Your task to perform on an android device: install app "Gmail" Image 0: 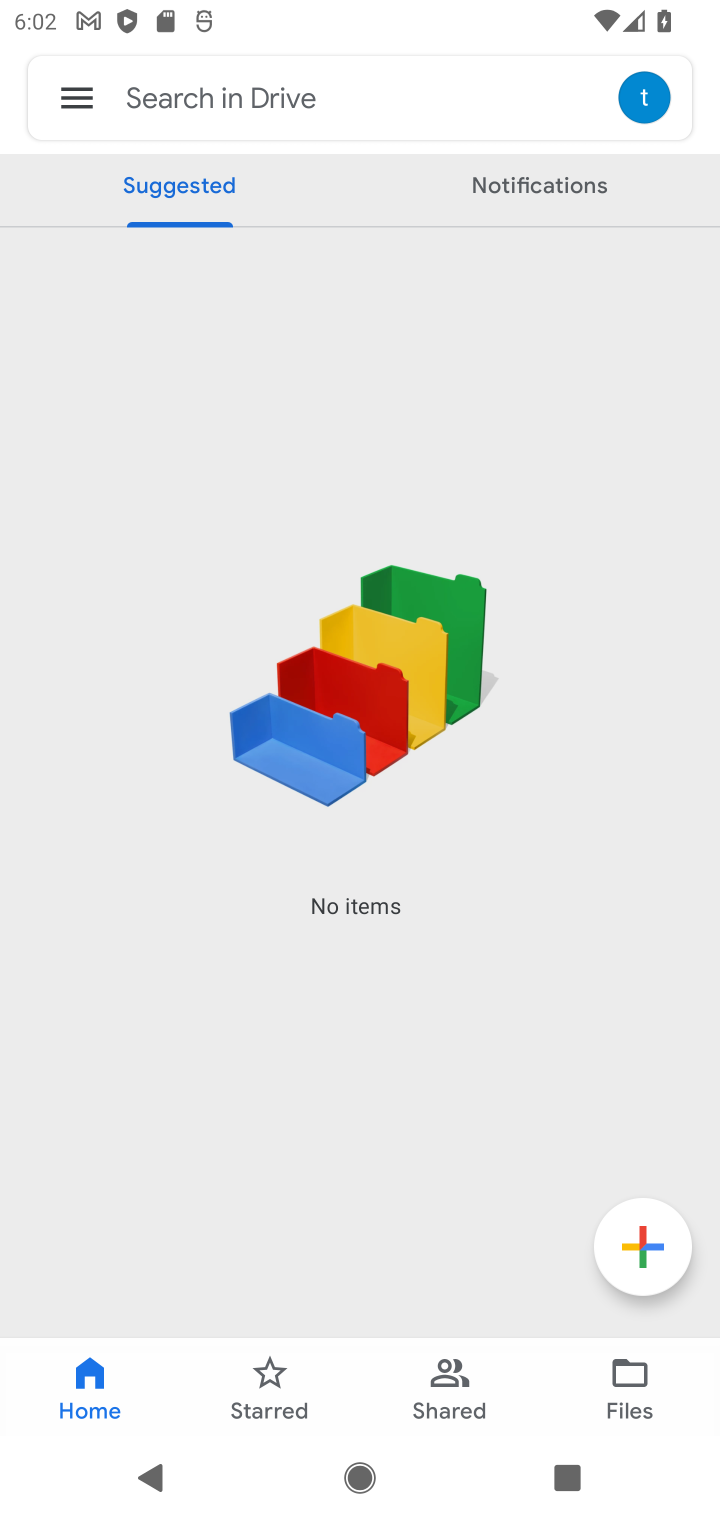
Step 0: click (343, 97)
Your task to perform on an android device: install app "Gmail" Image 1: 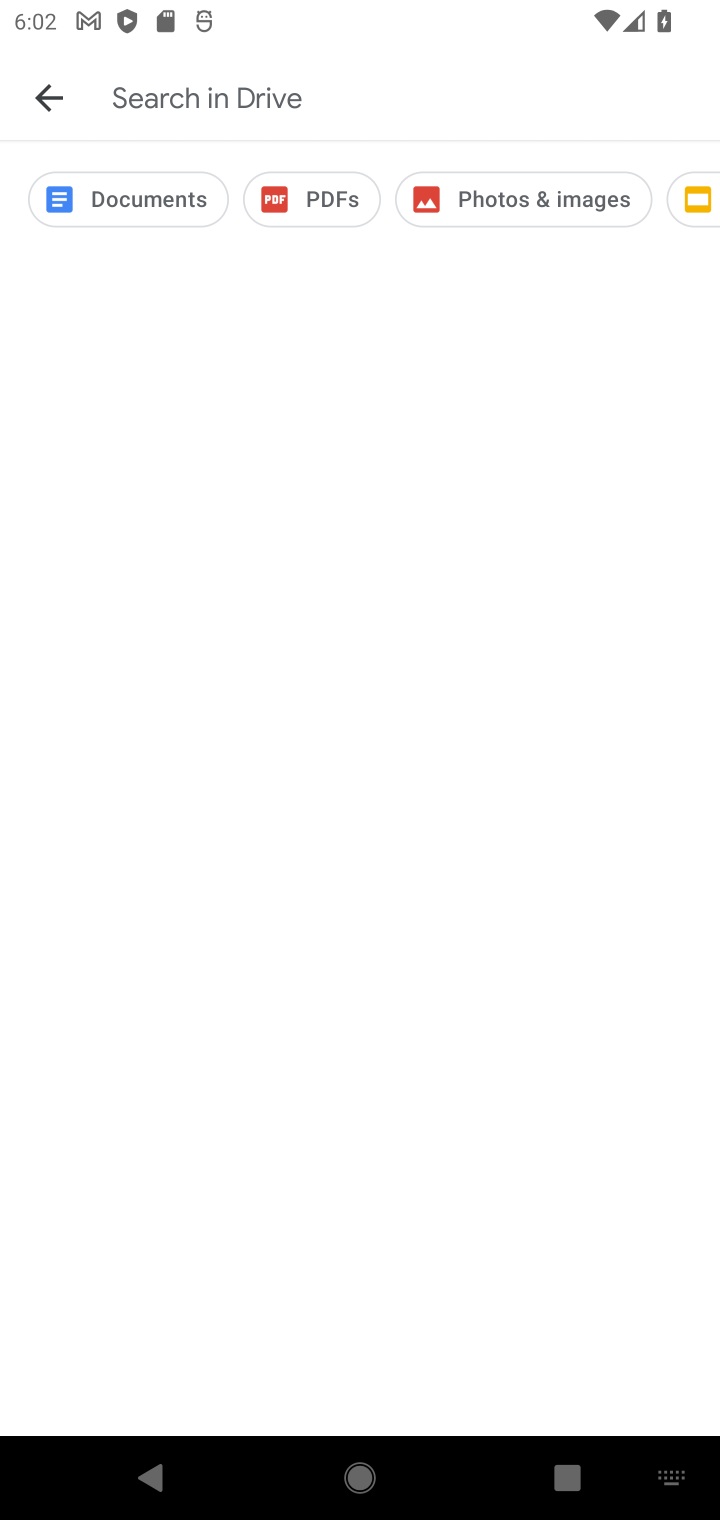
Step 1: press home button
Your task to perform on an android device: install app "Gmail" Image 2: 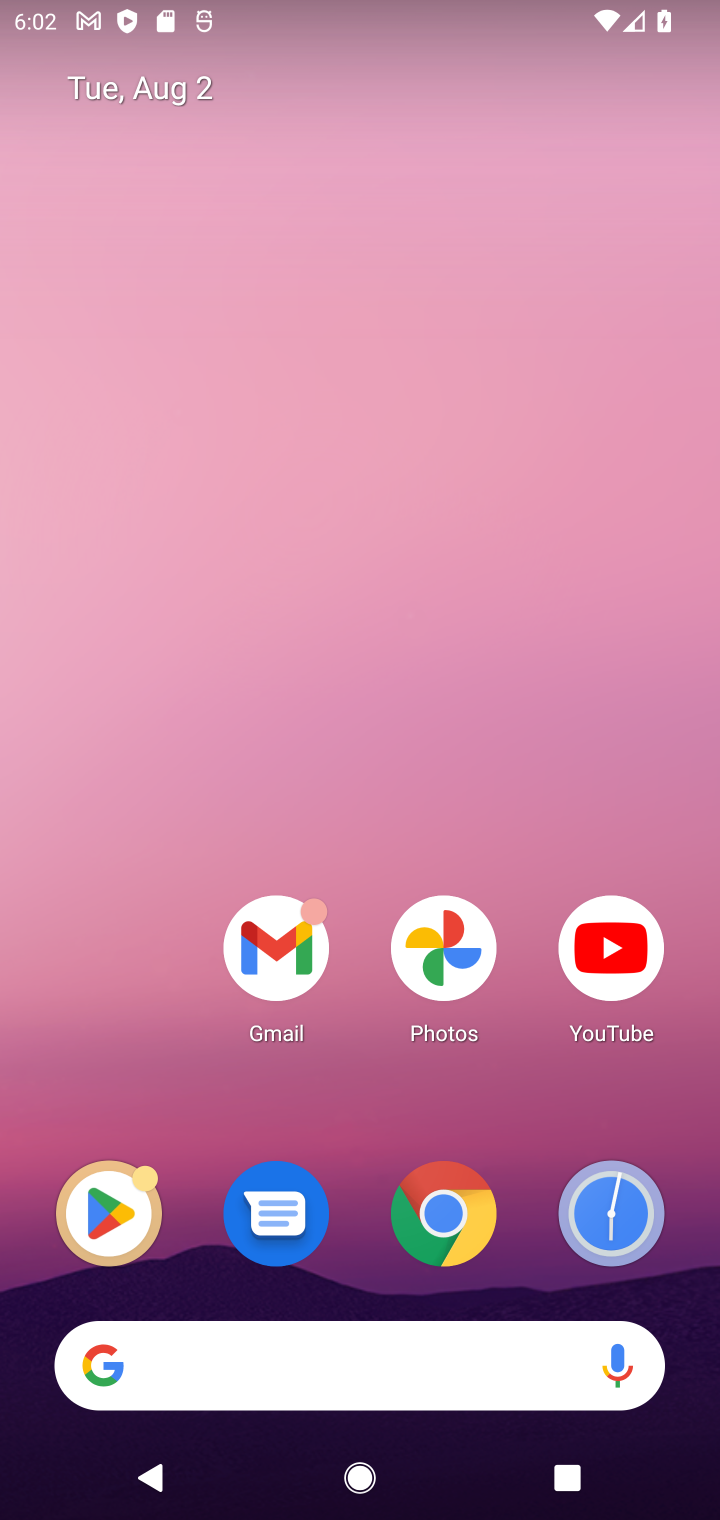
Step 2: click (115, 1211)
Your task to perform on an android device: install app "Gmail" Image 3: 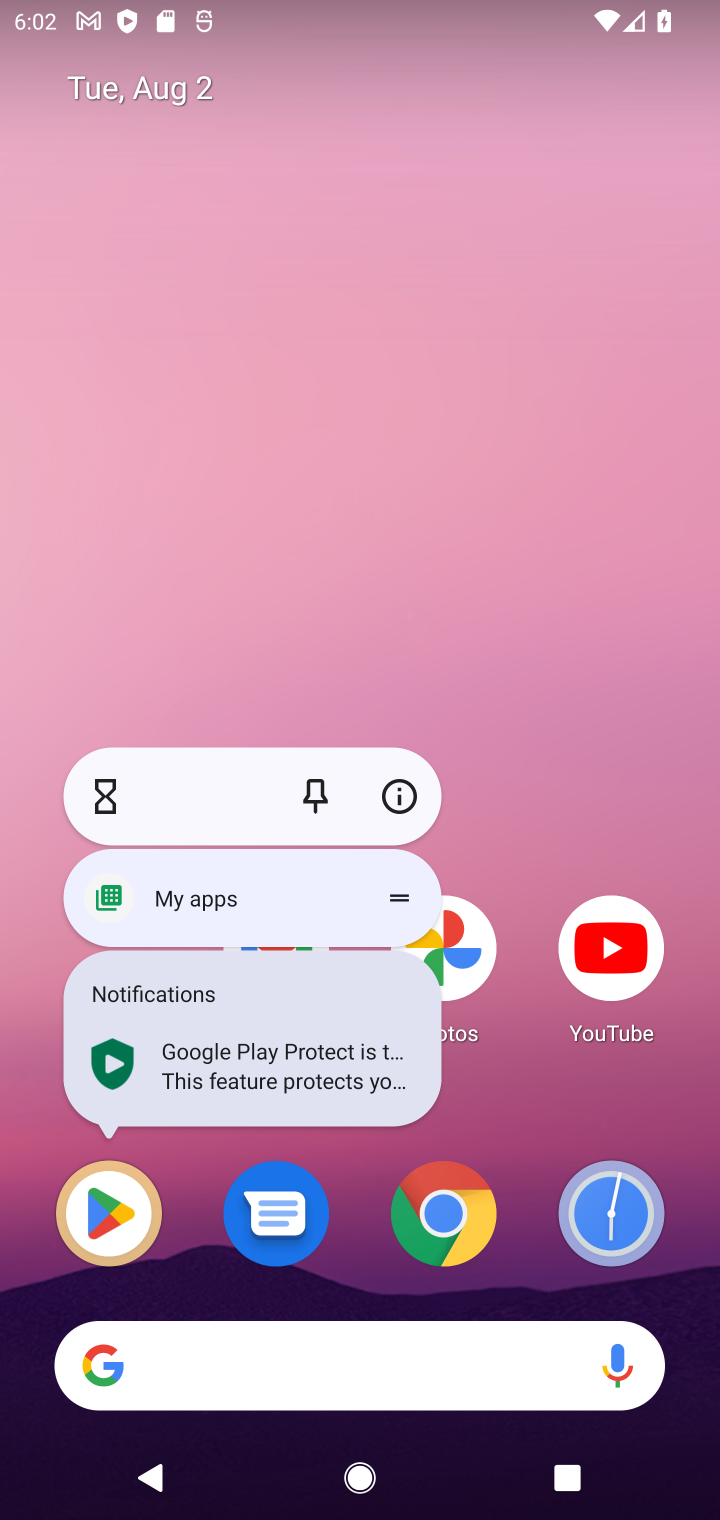
Step 3: click (115, 1211)
Your task to perform on an android device: install app "Gmail" Image 4: 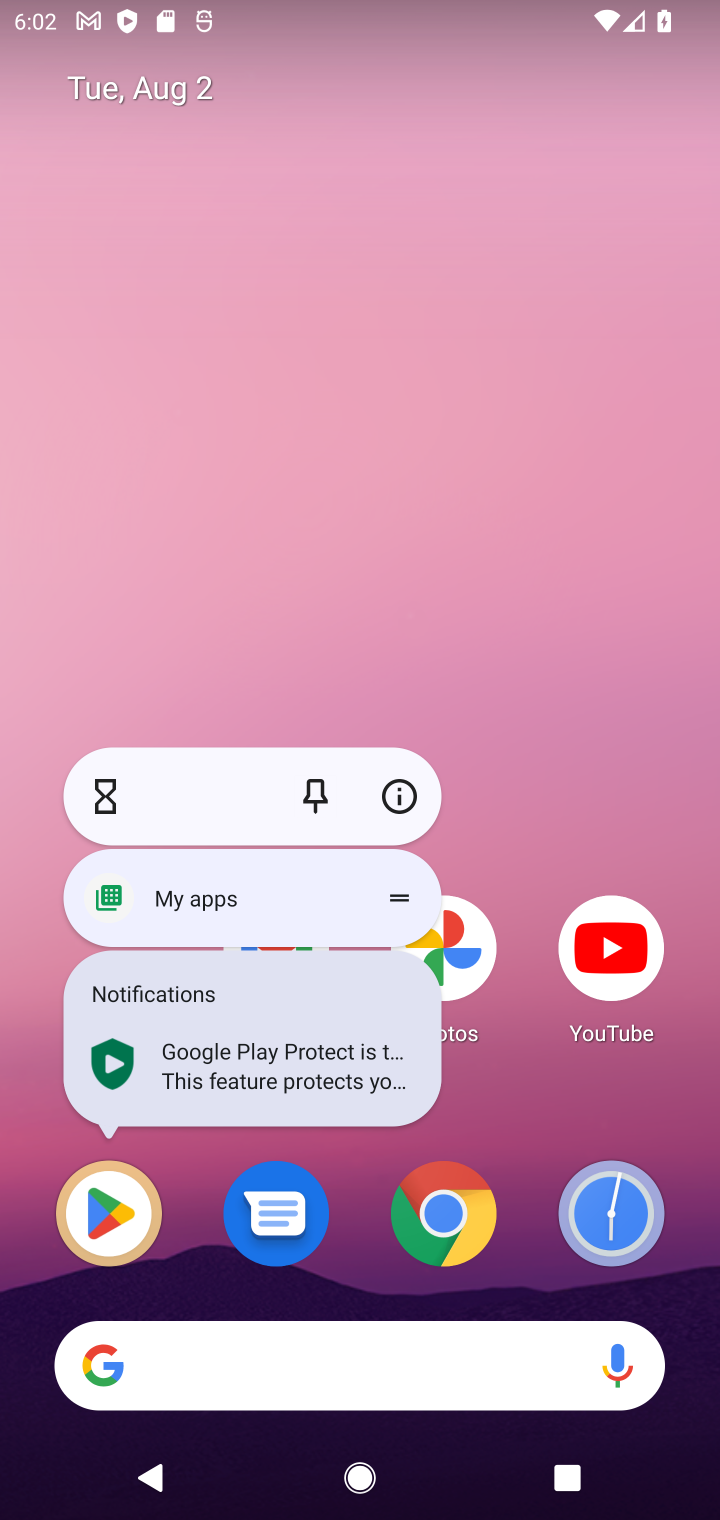
Step 4: click (85, 1189)
Your task to perform on an android device: install app "Gmail" Image 5: 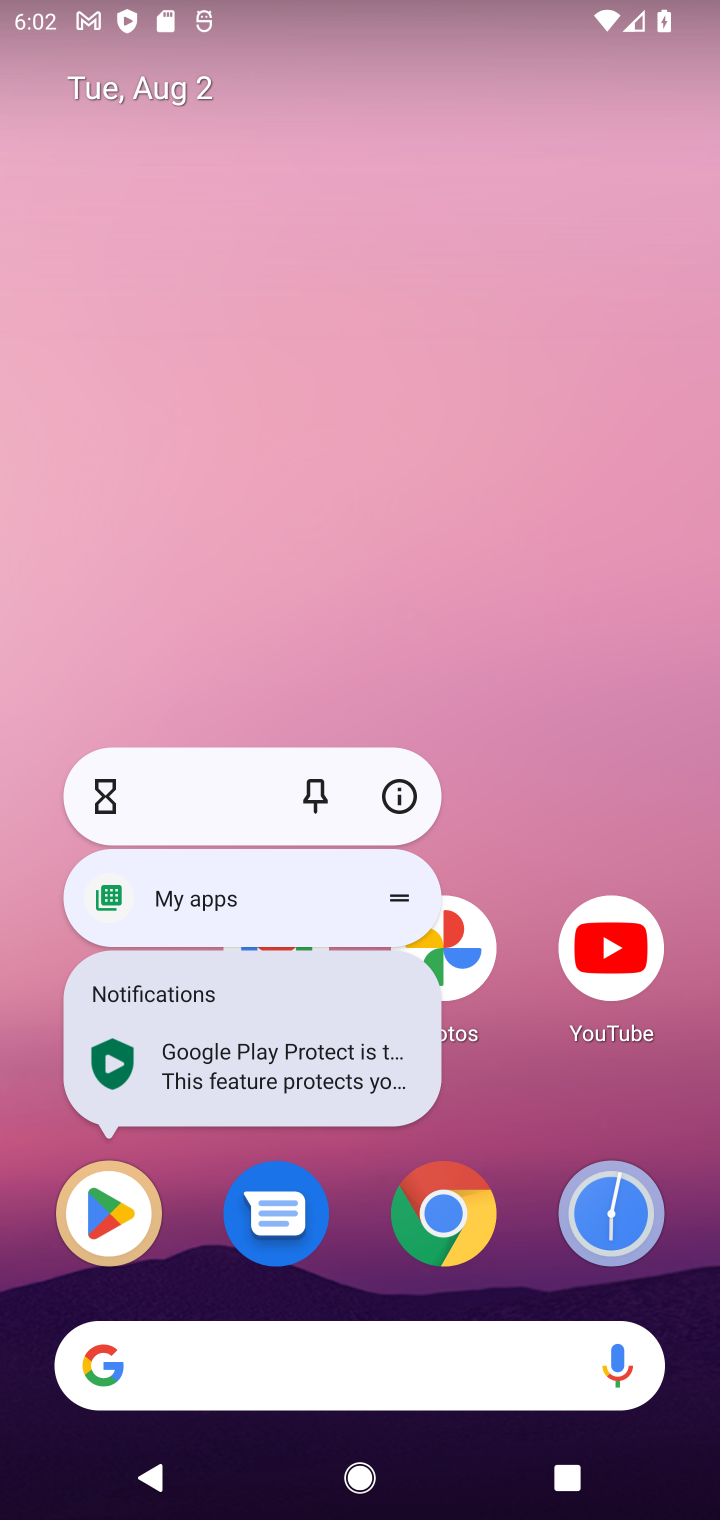
Step 5: drag from (63, 1195) to (97, 1262)
Your task to perform on an android device: install app "Gmail" Image 6: 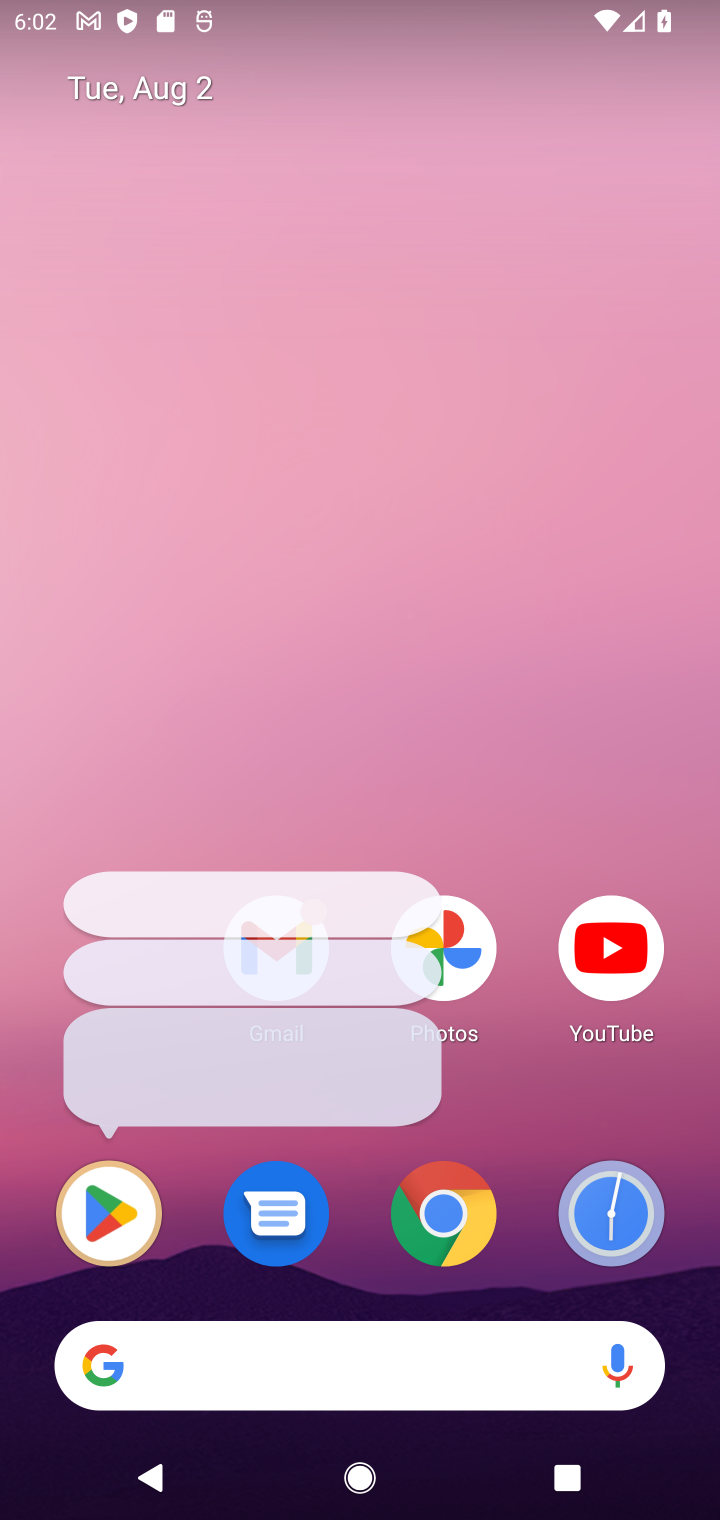
Step 6: click (140, 1190)
Your task to perform on an android device: install app "Gmail" Image 7: 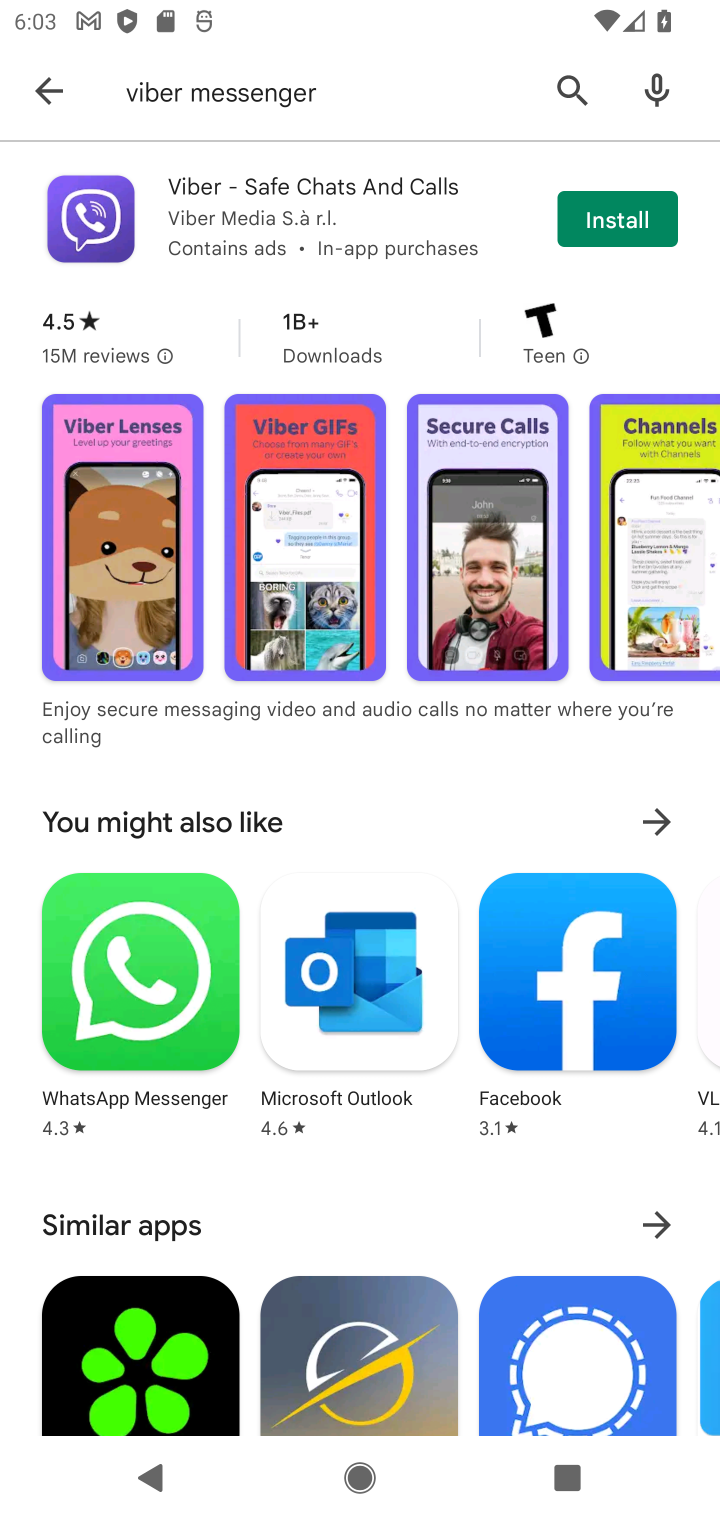
Step 7: click (587, 99)
Your task to perform on an android device: install app "Gmail" Image 8: 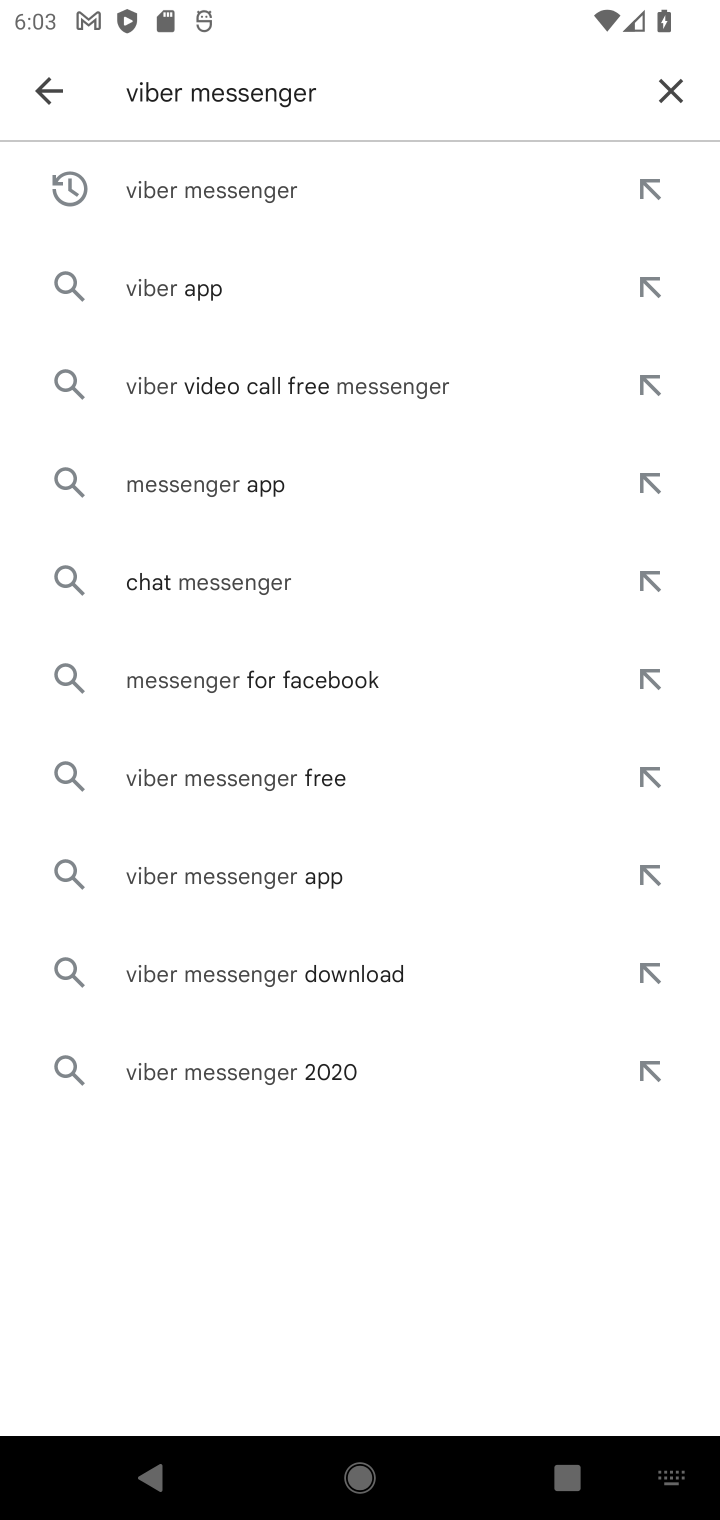
Step 8: click (678, 88)
Your task to perform on an android device: install app "Gmail" Image 9: 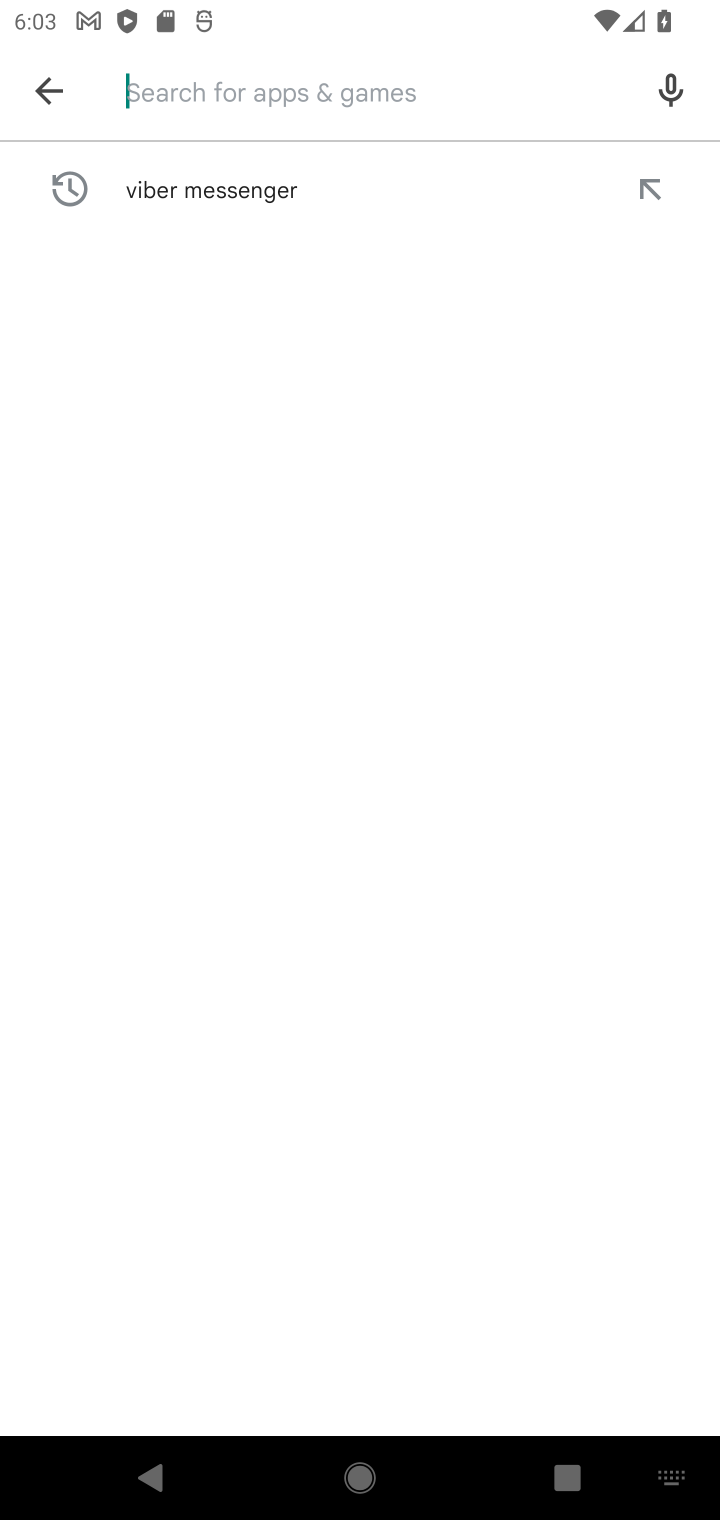
Step 9: type "gmail"
Your task to perform on an android device: install app "Gmail" Image 10: 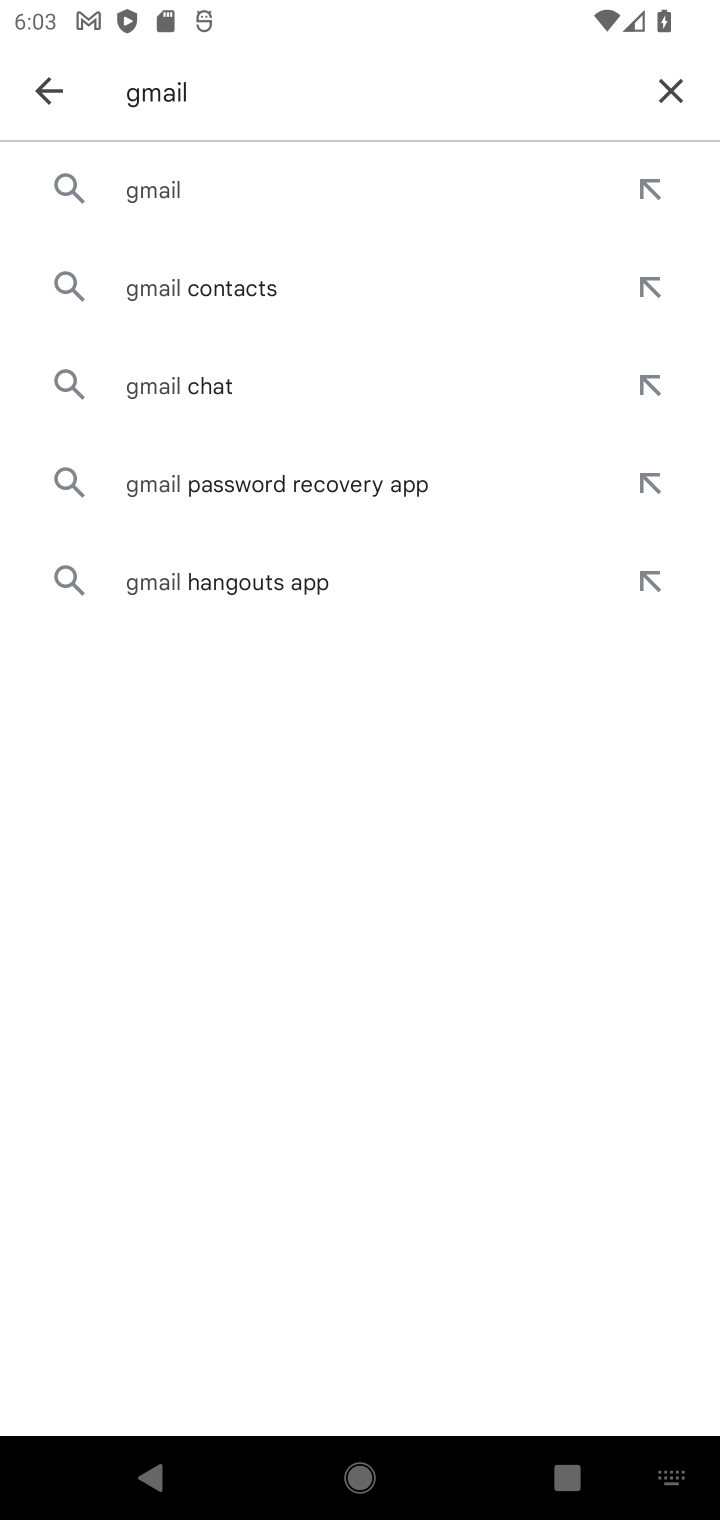
Step 10: click (192, 194)
Your task to perform on an android device: install app "Gmail" Image 11: 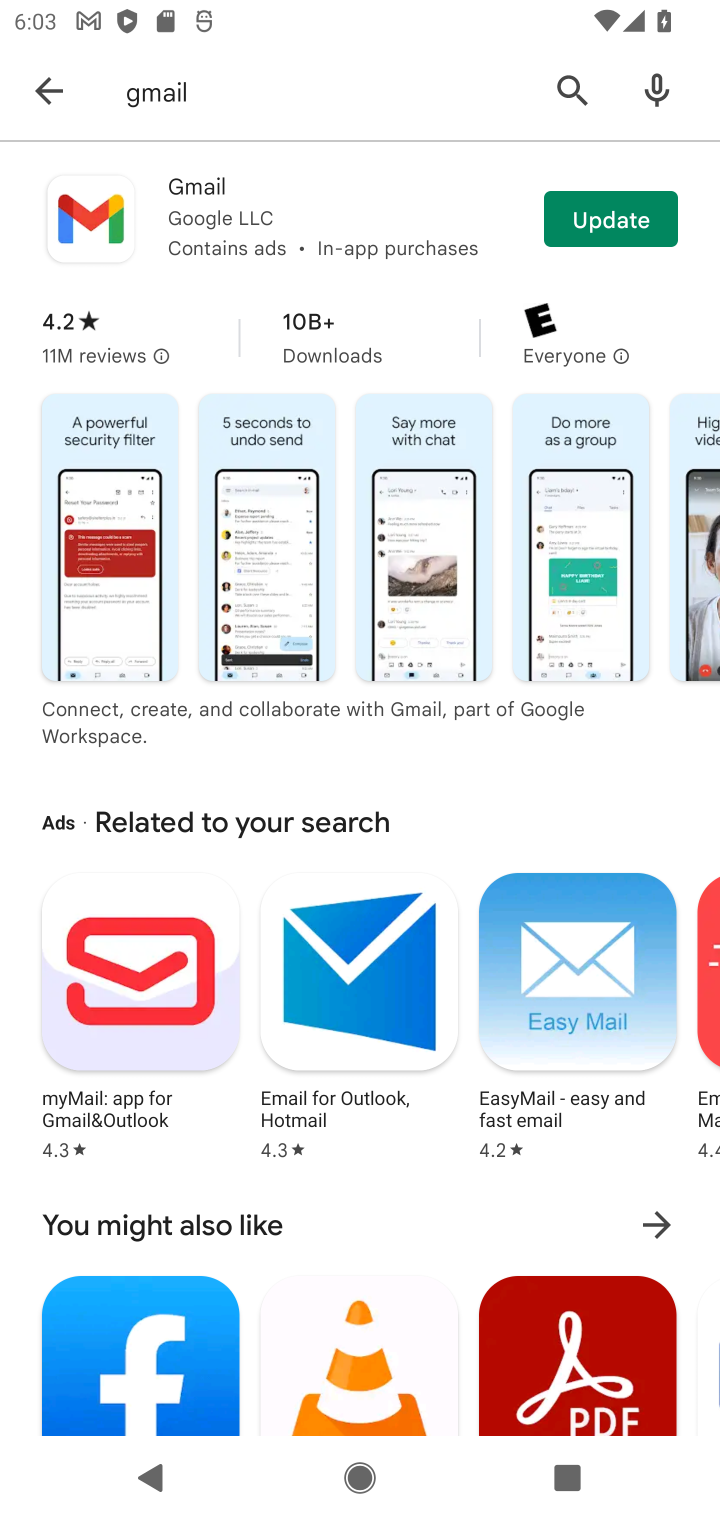
Step 11: click (625, 212)
Your task to perform on an android device: install app "Gmail" Image 12: 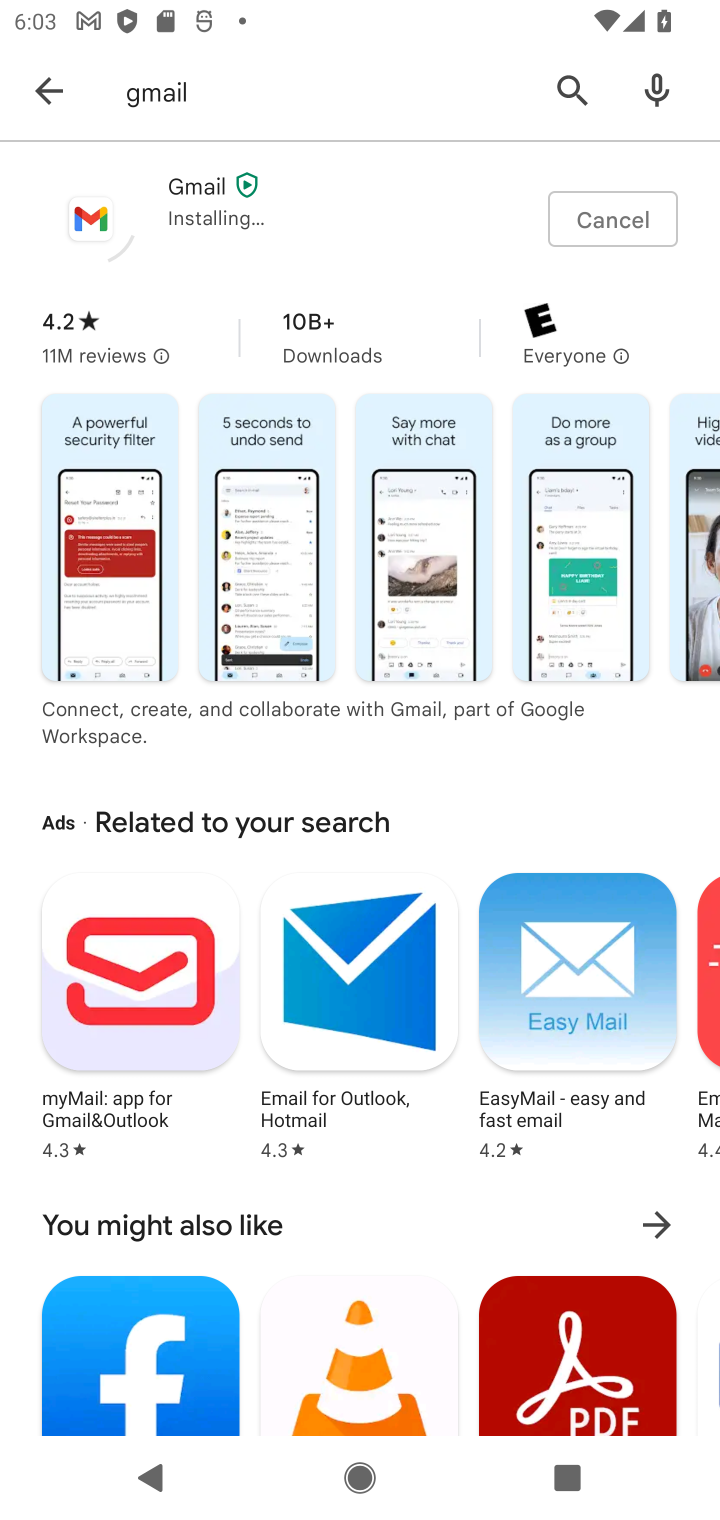
Step 12: task complete